Your task to perform on an android device: create a new album in the google photos Image 0: 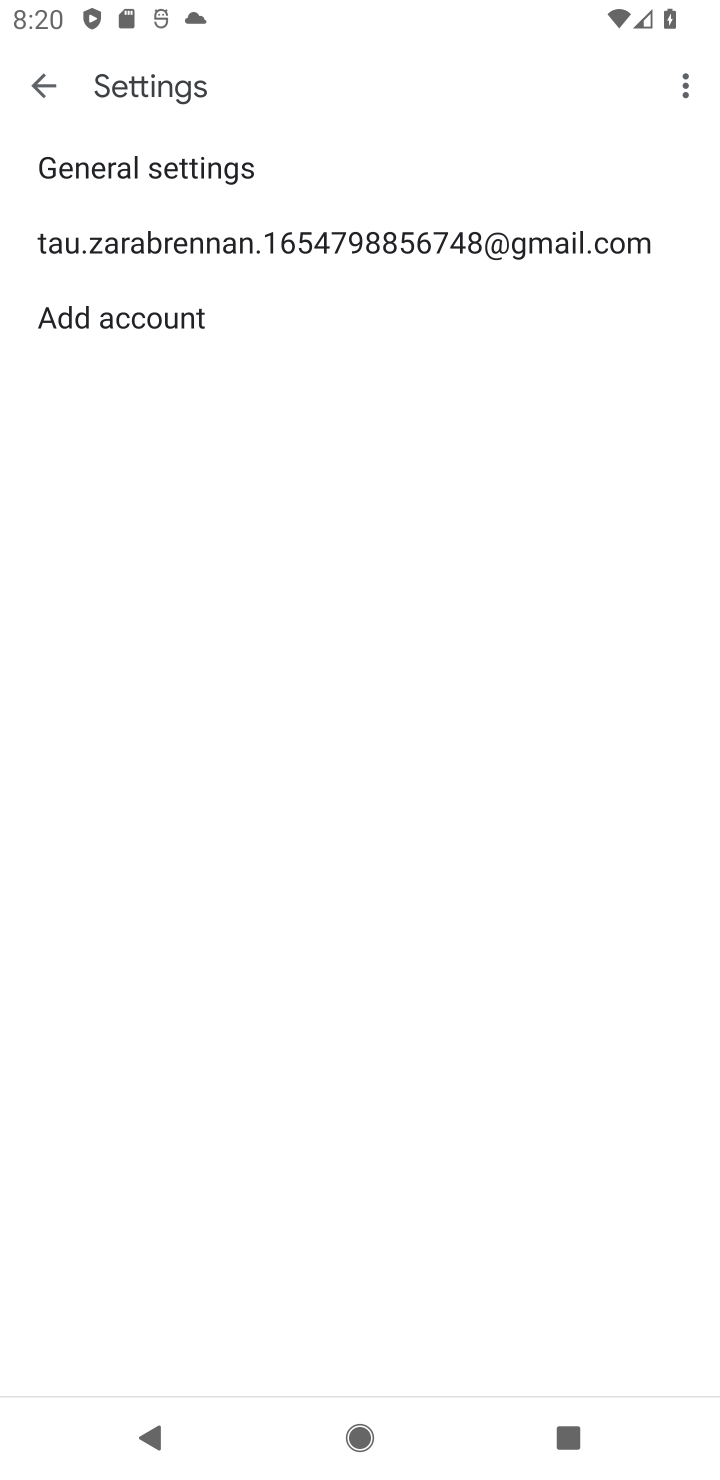
Step 0: press home button
Your task to perform on an android device: create a new album in the google photos Image 1: 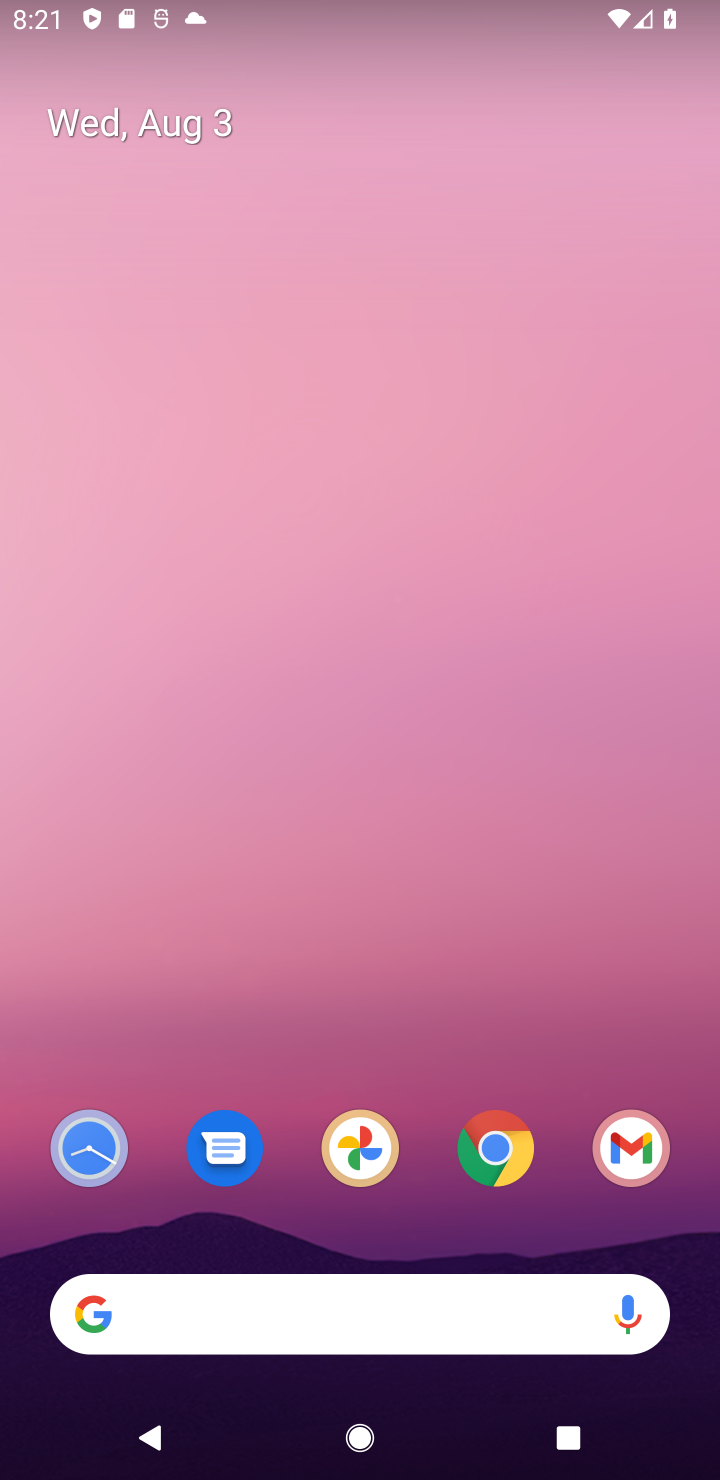
Step 1: click (373, 1131)
Your task to perform on an android device: create a new album in the google photos Image 2: 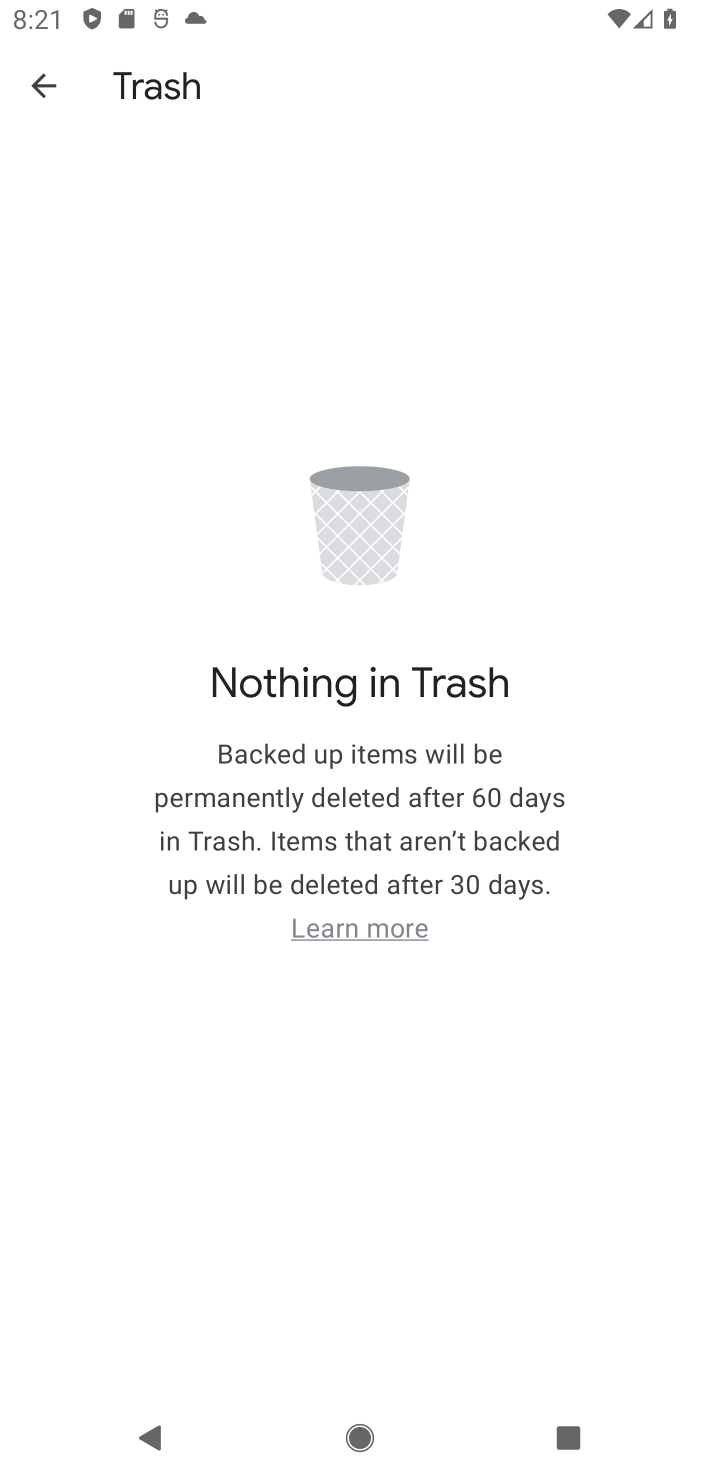
Step 2: click (44, 100)
Your task to perform on an android device: create a new album in the google photos Image 3: 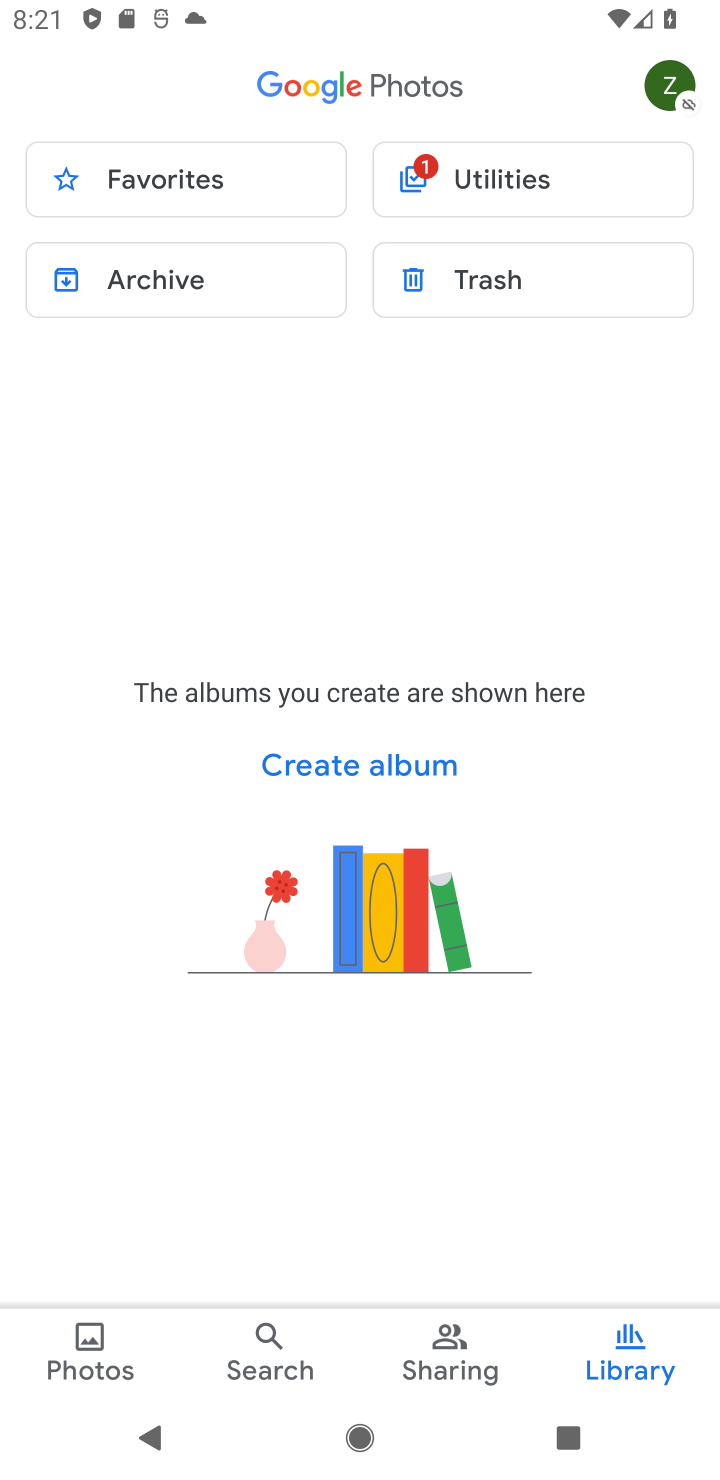
Step 3: click (100, 1340)
Your task to perform on an android device: create a new album in the google photos Image 4: 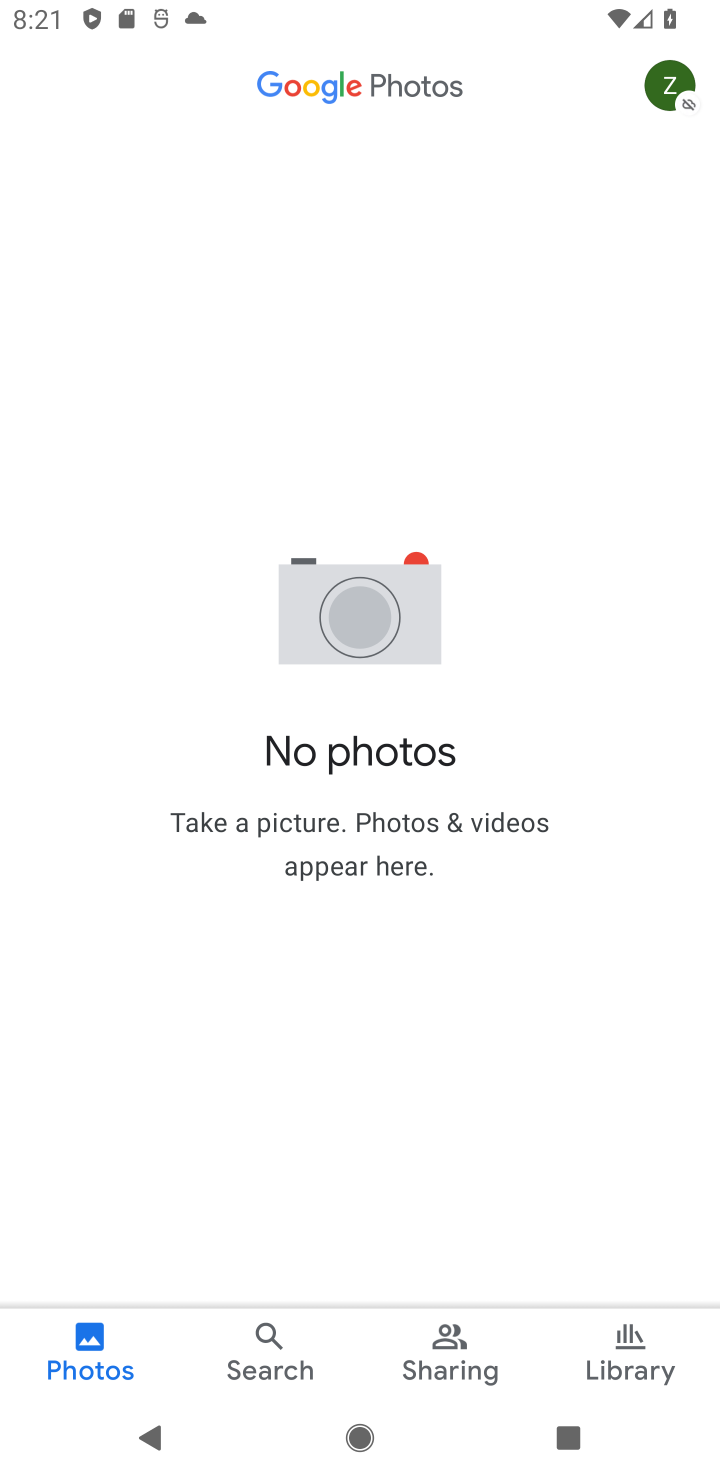
Step 4: task complete